Your task to perform on an android device: What's the weather? Image 0: 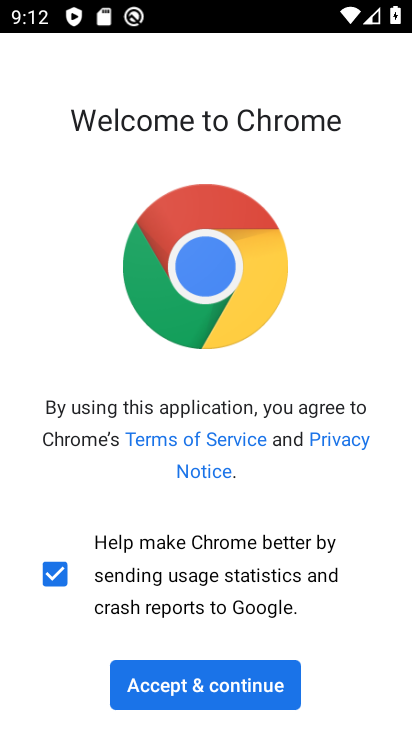
Step 0: press home button
Your task to perform on an android device: What's the weather? Image 1: 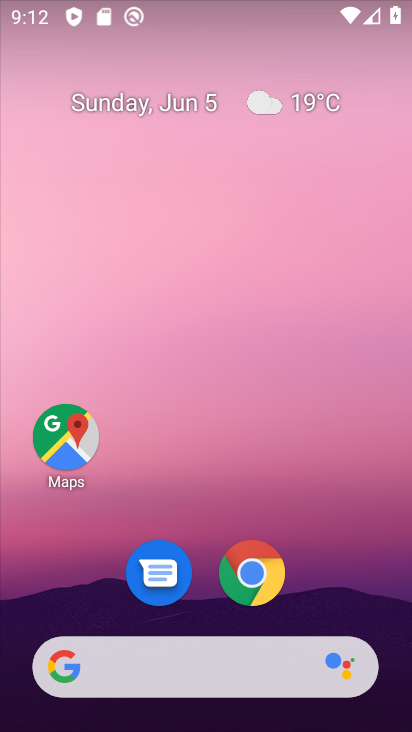
Step 1: click (264, 104)
Your task to perform on an android device: What's the weather? Image 2: 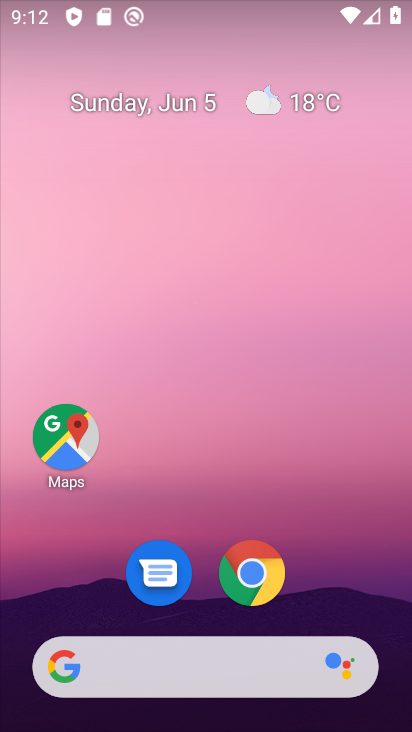
Step 2: drag from (242, 338) to (242, 221)
Your task to perform on an android device: What's the weather? Image 3: 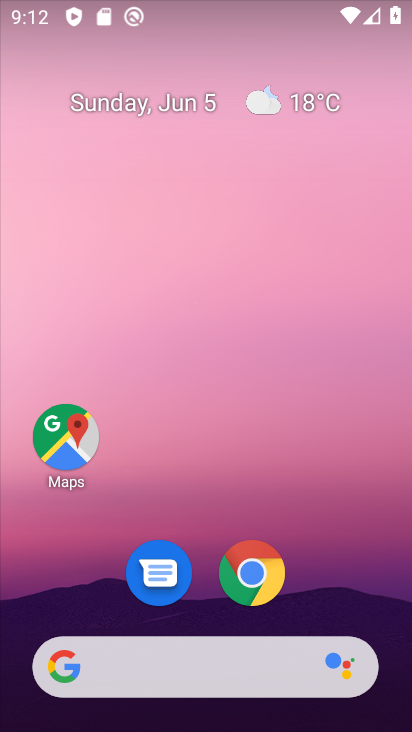
Step 3: drag from (192, 712) to (191, 170)
Your task to perform on an android device: What's the weather? Image 4: 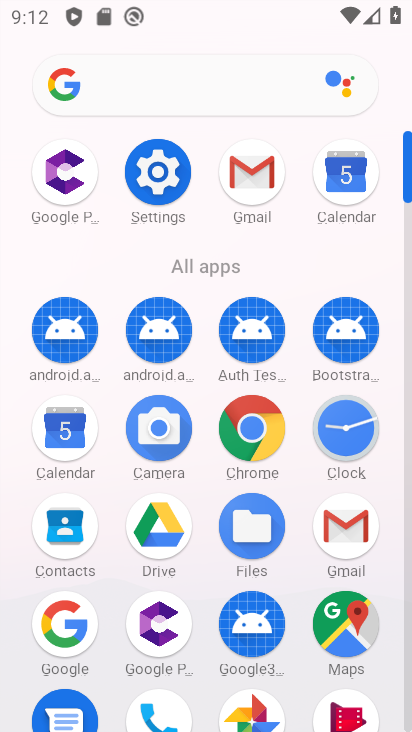
Step 4: click (70, 618)
Your task to perform on an android device: What's the weather? Image 5: 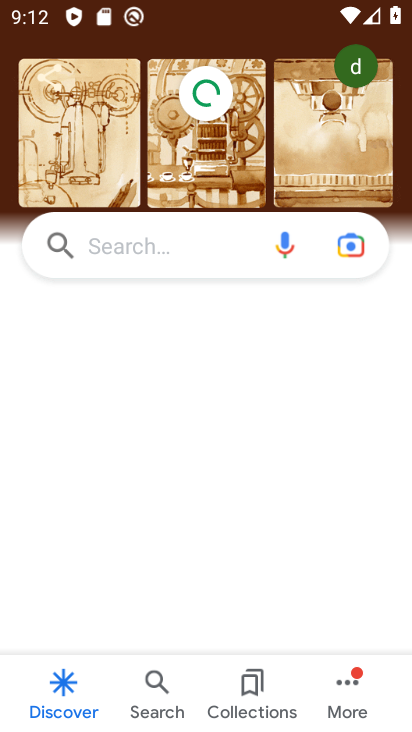
Step 5: click (182, 252)
Your task to perform on an android device: What's the weather? Image 6: 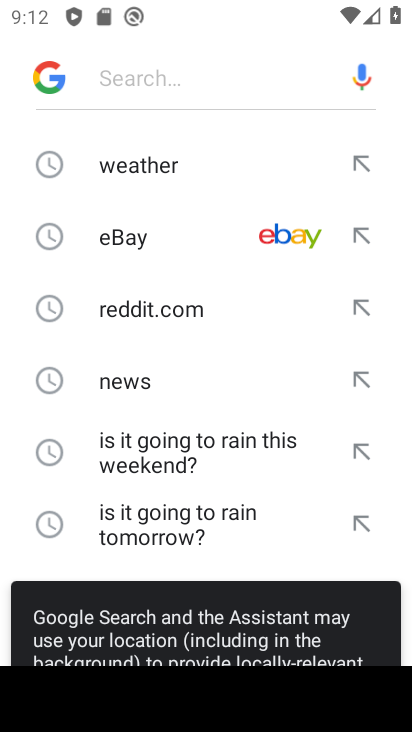
Step 6: click (114, 161)
Your task to perform on an android device: What's the weather? Image 7: 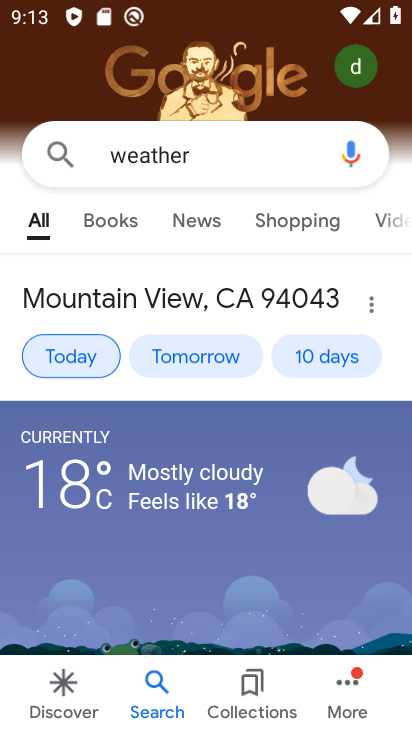
Step 7: task complete